Your task to perform on an android device: Open Maps and search for coffee Image 0: 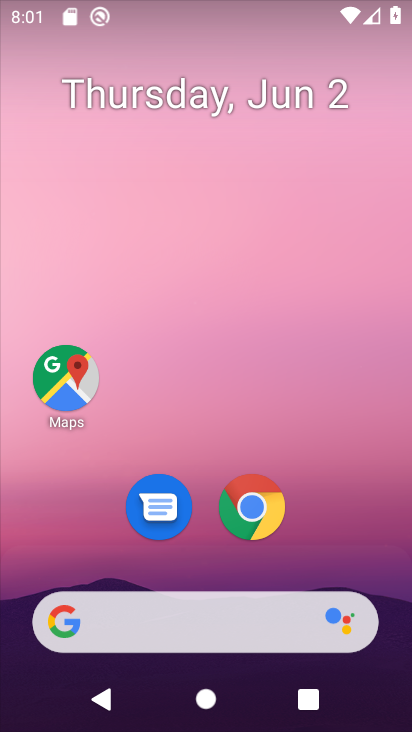
Step 0: click (57, 375)
Your task to perform on an android device: Open Maps and search for coffee Image 1: 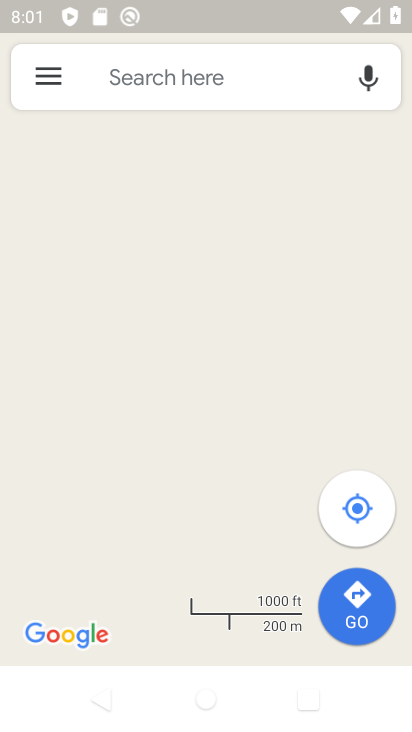
Step 1: click (176, 88)
Your task to perform on an android device: Open Maps and search for coffee Image 2: 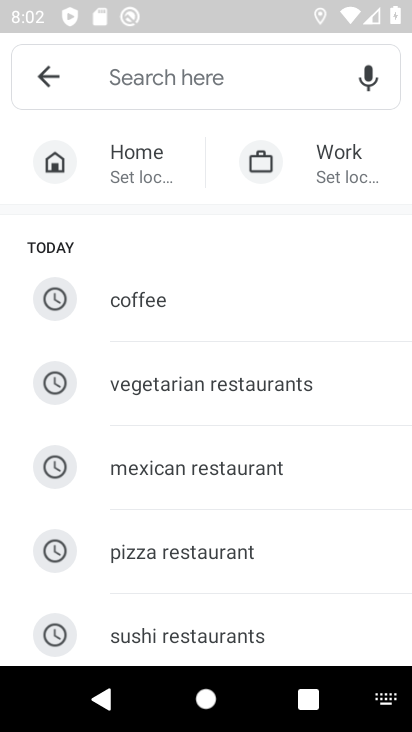
Step 2: type "Coffee "
Your task to perform on an android device: Open Maps and search for coffee Image 3: 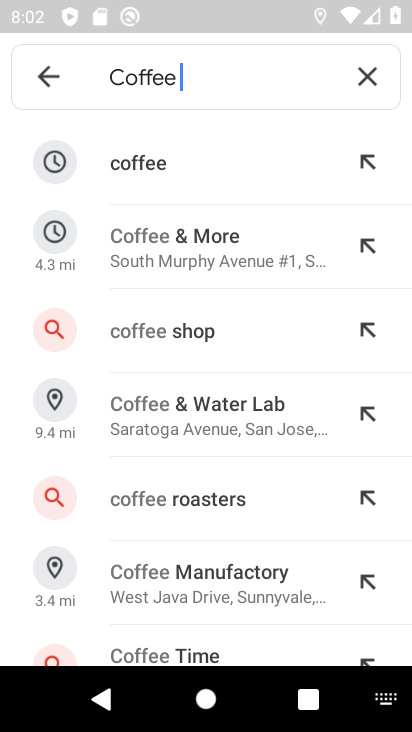
Step 3: click (198, 159)
Your task to perform on an android device: Open Maps and search for coffee Image 4: 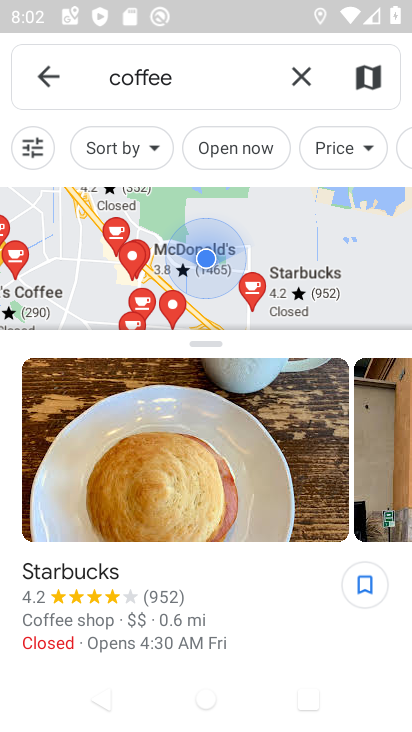
Step 4: task complete